Your task to perform on an android device: Is it going to rain today? Image 0: 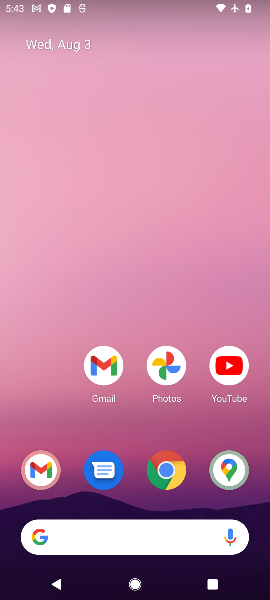
Step 0: drag from (53, 417) to (147, 97)
Your task to perform on an android device: Is it going to rain today? Image 1: 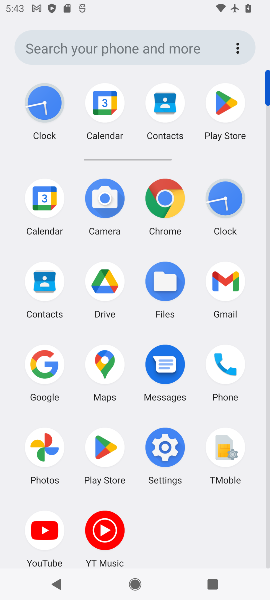
Step 1: click (165, 197)
Your task to perform on an android device: Is it going to rain today? Image 2: 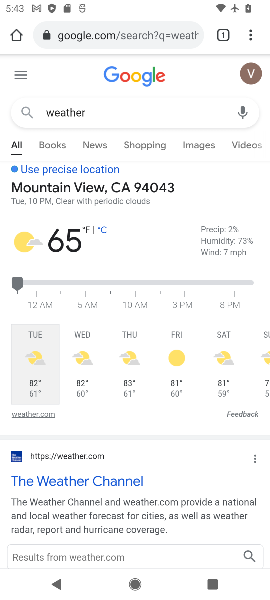
Step 2: task complete